Your task to perform on an android device: Go to network settings Image 0: 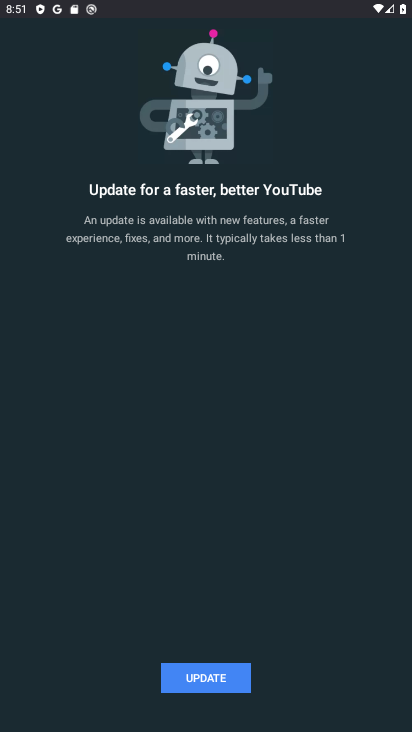
Step 0: drag from (364, 6) to (285, 631)
Your task to perform on an android device: Go to network settings Image 1: 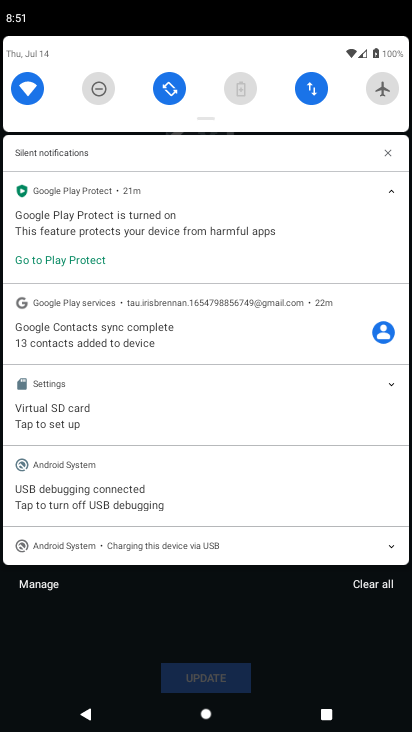
Step 1: click (311, 94)
Your task to perform on an android device: Go to network settings Image 2: 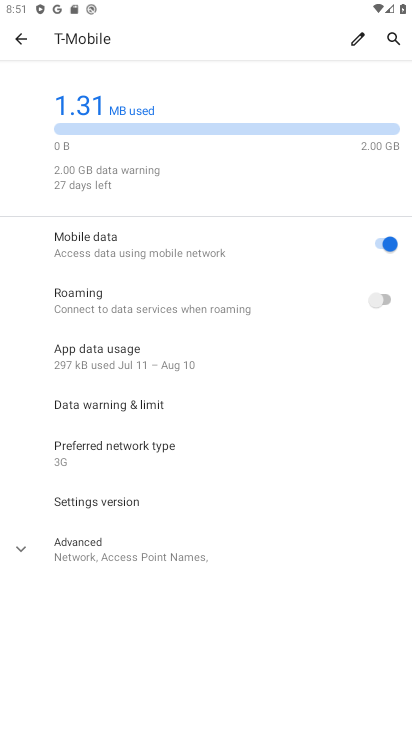
Step 2: task complete